Your task to perform on an android device: read, delete, or share a saved page in the chrome app Image 0: 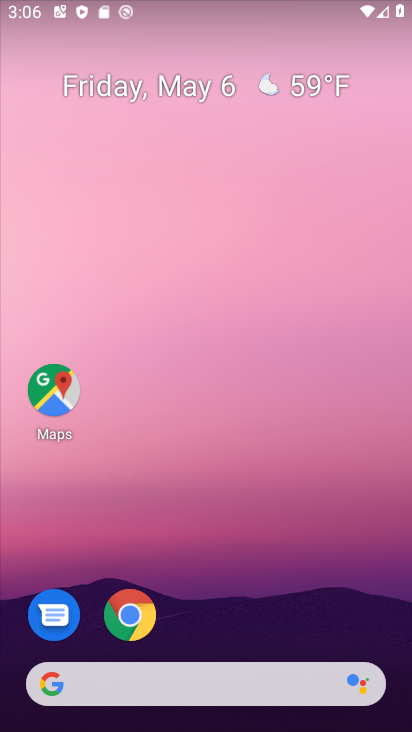
Step 0: drag from (255, 608) to (266, 258)
Your task to perform on an android device: read, delete, or share a saved page in the chrome app Image 1: 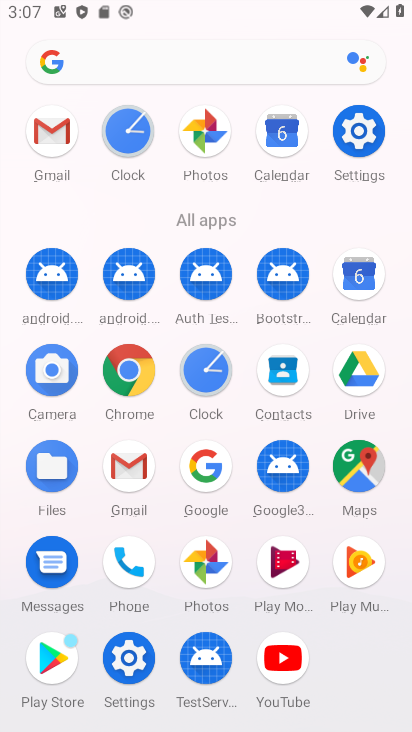
Step 1: click (112, 353)
Your task to perform on an android device: read, delete, or share a saved page in the chrome app Image 2: 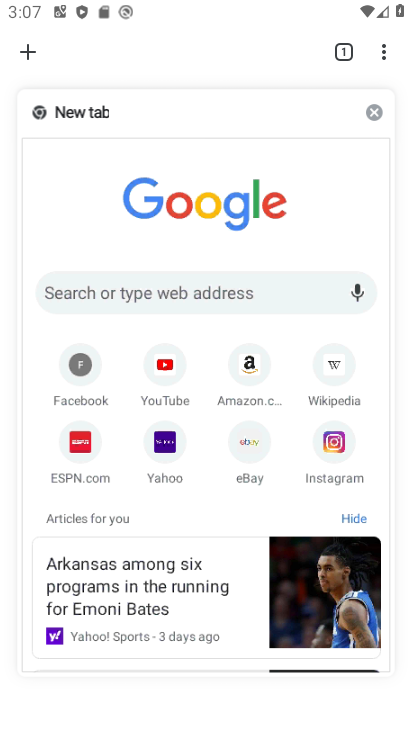
Step 2: click (373, 54)
Your task to perform on an android device: read, delete, or share a saved page in the chrome app Image 3: 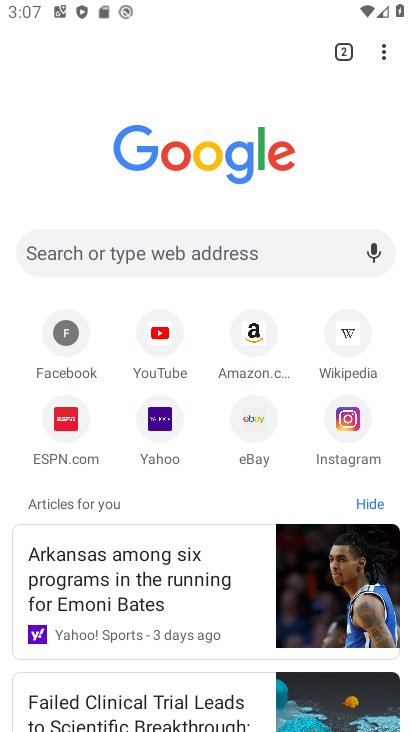
Step 3: click (371, 47)
Your task to perform on an android device: read, delete, or share a saved page in the chrome app Image 4: 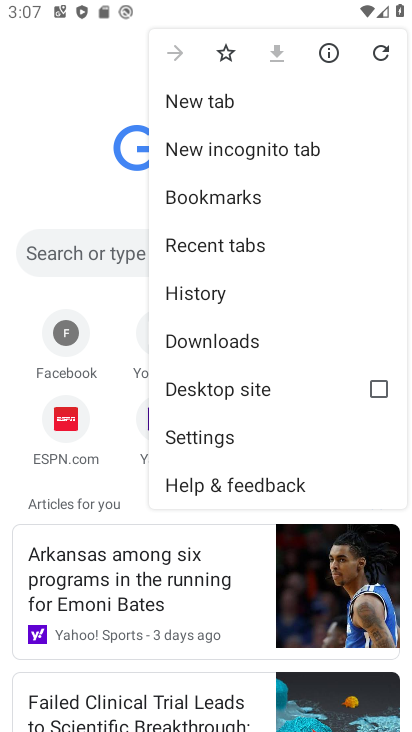
Step 4: click (207, 339)
Your task to perform on an android device: read, delete, or share a saved page in the chrome app Image 5: 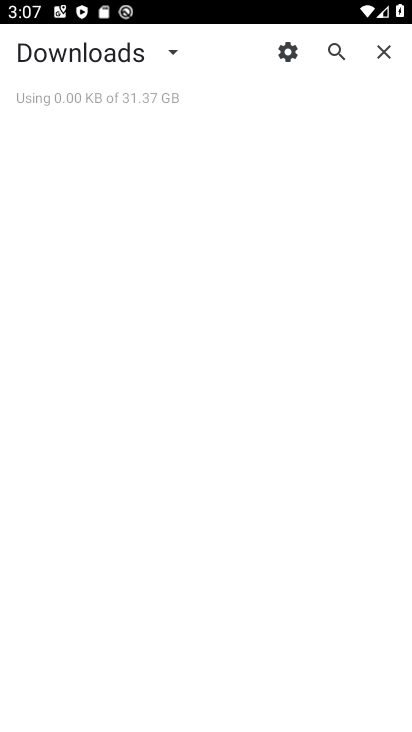
Step 5: click (171, 52)
Your task to perform on an android device: read, delete, or share a saved page in the chrome app Image 6: 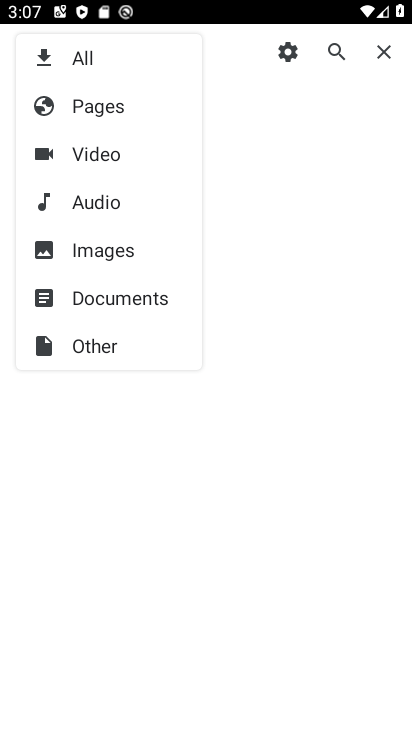
Step 6: click (95, 114)
Your task to perform on an android device: read, delete, or share a saved page in the chrome app Image 7: 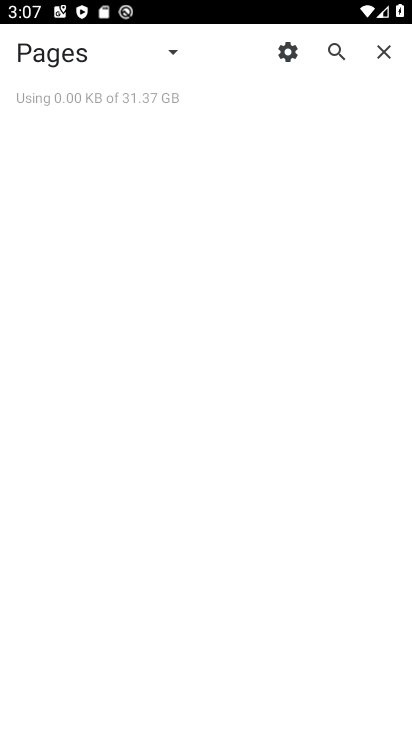
Step 7: task complete